Your task to perform on an android device: Open the phone app and click the voicemail tab. Image 0: 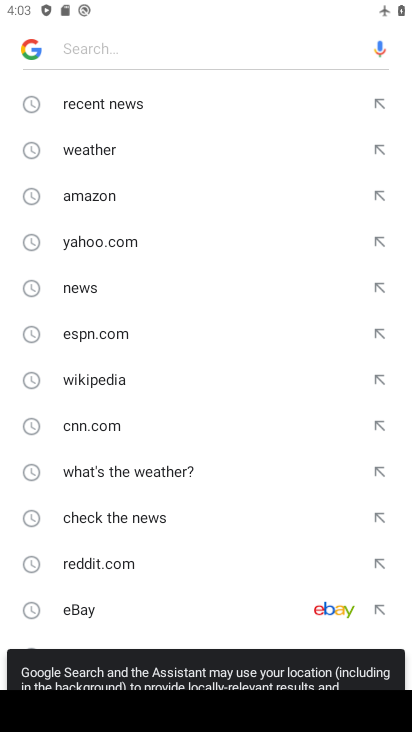
Step 0: press home button
Your task to perform on an android device: Open the phone app and click the voicemail tab. Image 1: 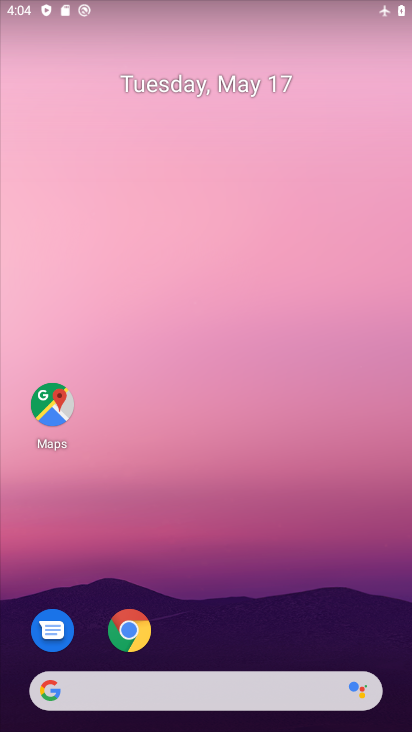
Step 1: drag from (195, 718) to (203, 102)
Your task to perform on an android device: Open the phone app and click the voicemail tab. Image 2: 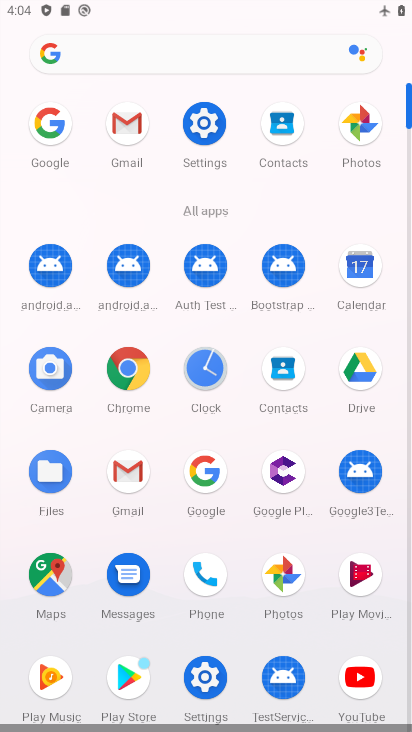
Step 2: click (201, 558)
Your task to perform on an android device: Open the phone app and click the voicemail tab. Image 3: 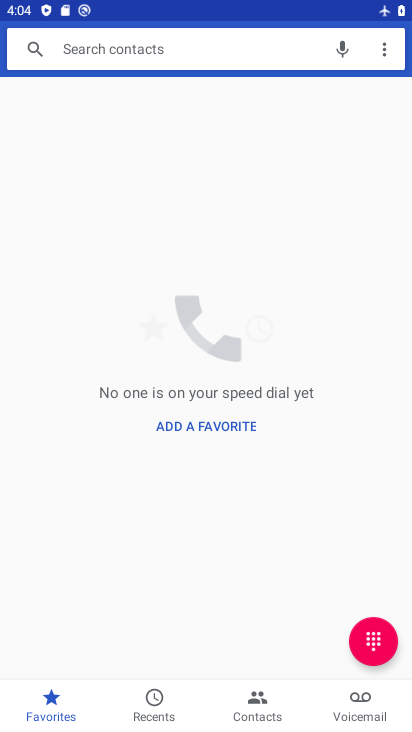
Step 3: click (363, 701)
Your task to perform on an android device: Open the phone app and click the voicemail tab. Image 4: 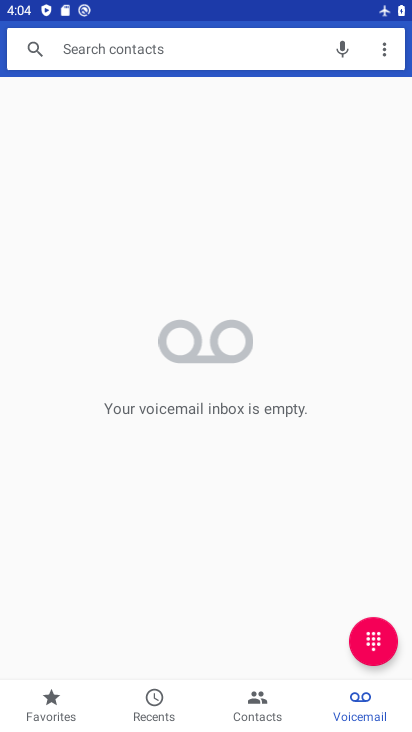
Step 4: task complete